Your task to perform on an android device: turn notification dots off Image 0: 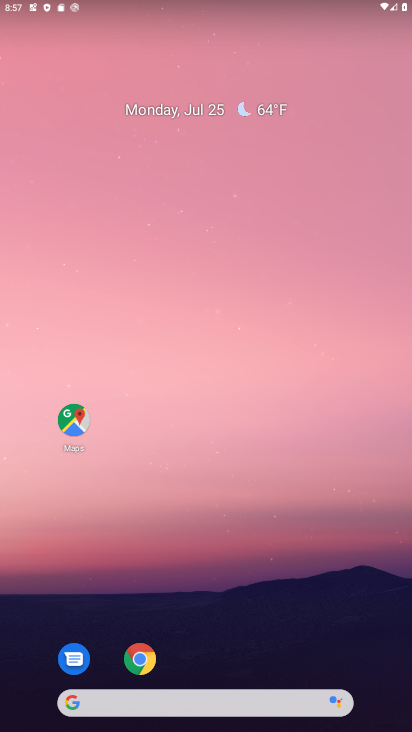
Step 0: press home button
Your task to perform on an android device: turn notification dots off Image 1: 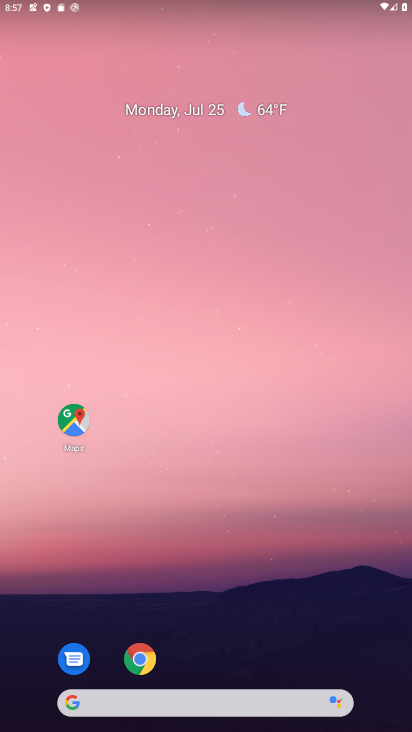
Step 1: drag from (364, 599) to (364, 83)
Your task to perform on an android device: turn notification dots off Image 2: 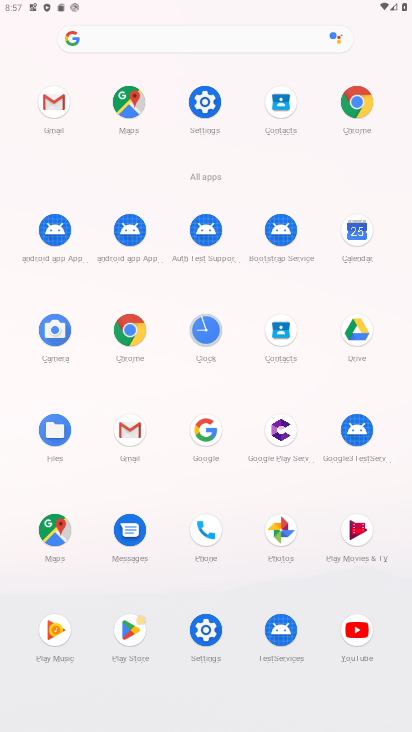
Step 2: click (205, 106)
Your task to perform on an android device: turn notification dots off Image 3: 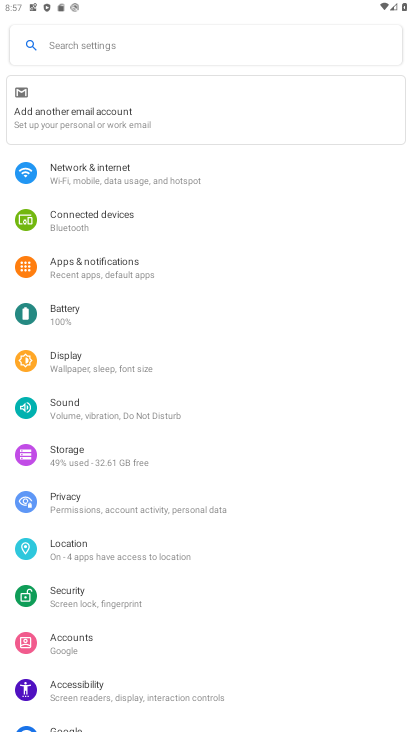
Step 3: drag from (321, 433) to (330, 321)
Your task to perform on an android device: turn notification dots off Image 4: 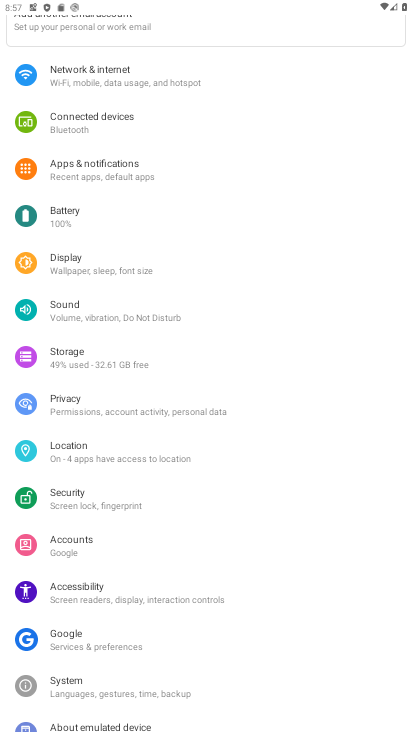
Step 4: drag from (347, 522) to (340, 371)
Your task to perform on an android device: turn notification dots off Image 5: 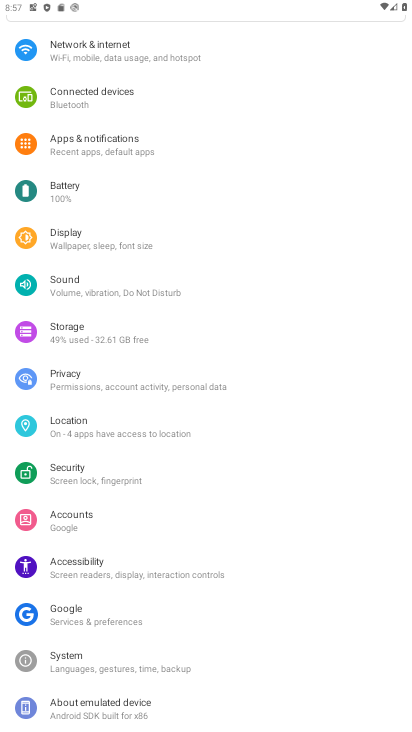
Step 5: drag from (304, 196) to (317, 464)
Your task to perform on an android device: turn notification dots off Image 6: 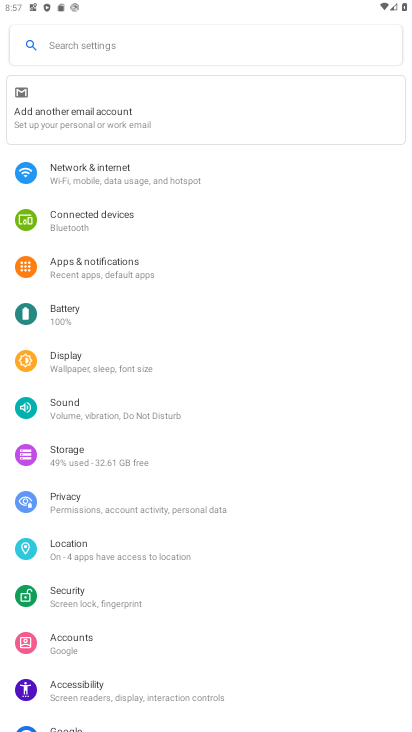
Step 6: click (133, 270)
Your task to perform on an android device: turn notification dots off Image 7: 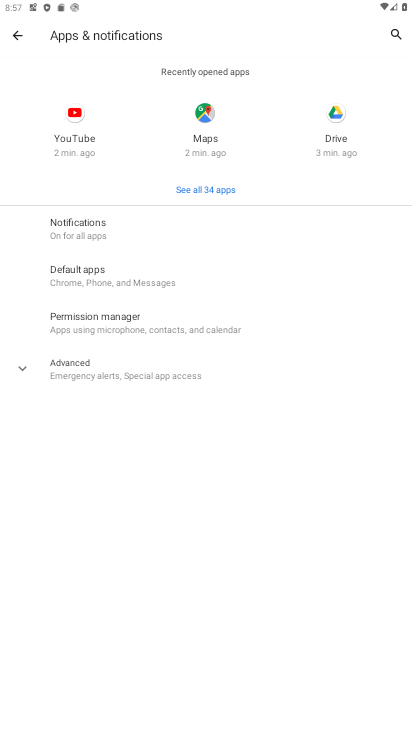
Step 7: click (101, 224)
Your task to perform on an android device: turn notification dots off Image 8: 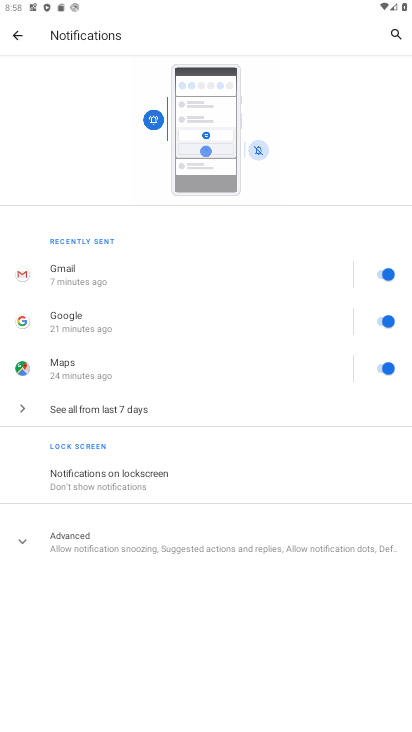
Step 8: click (212, 540)
Your task to perform on an android device: turn notification dots off Image 9: 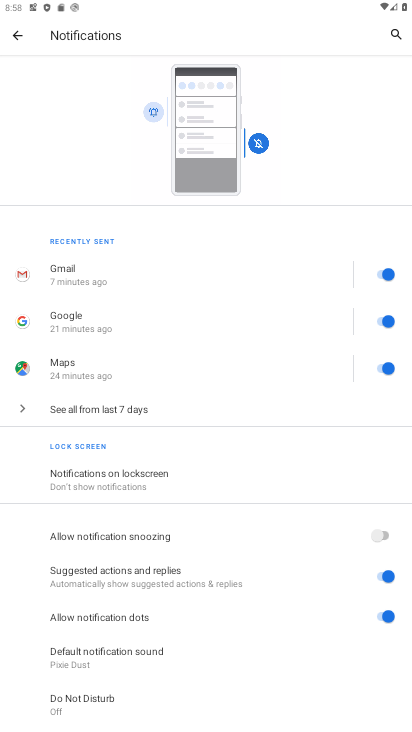
Step 9: drag from (230, 622) to (249, 544)
Your task to perform on an android device: turn notification dots off Image 10: 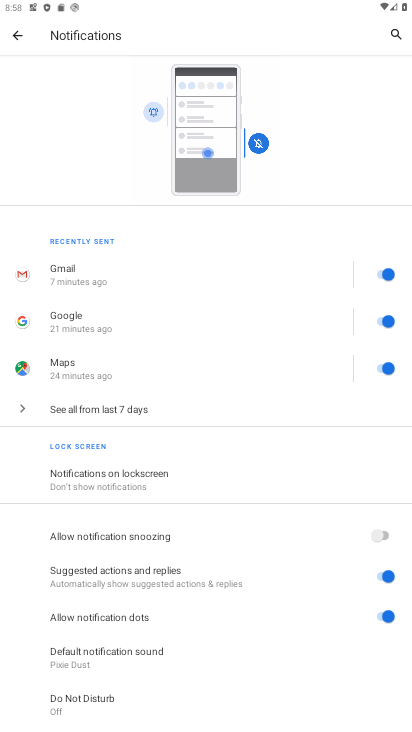
Step 10: click (381, 612)
Your task to perform on an android device: turn notification dots off Image 11: 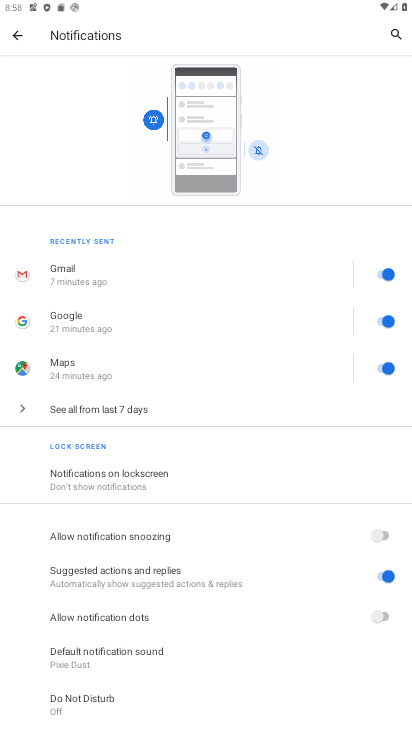
Step 11: task complete